Your task to perform on an android device: move a message to another label in the gmail app Image 0: 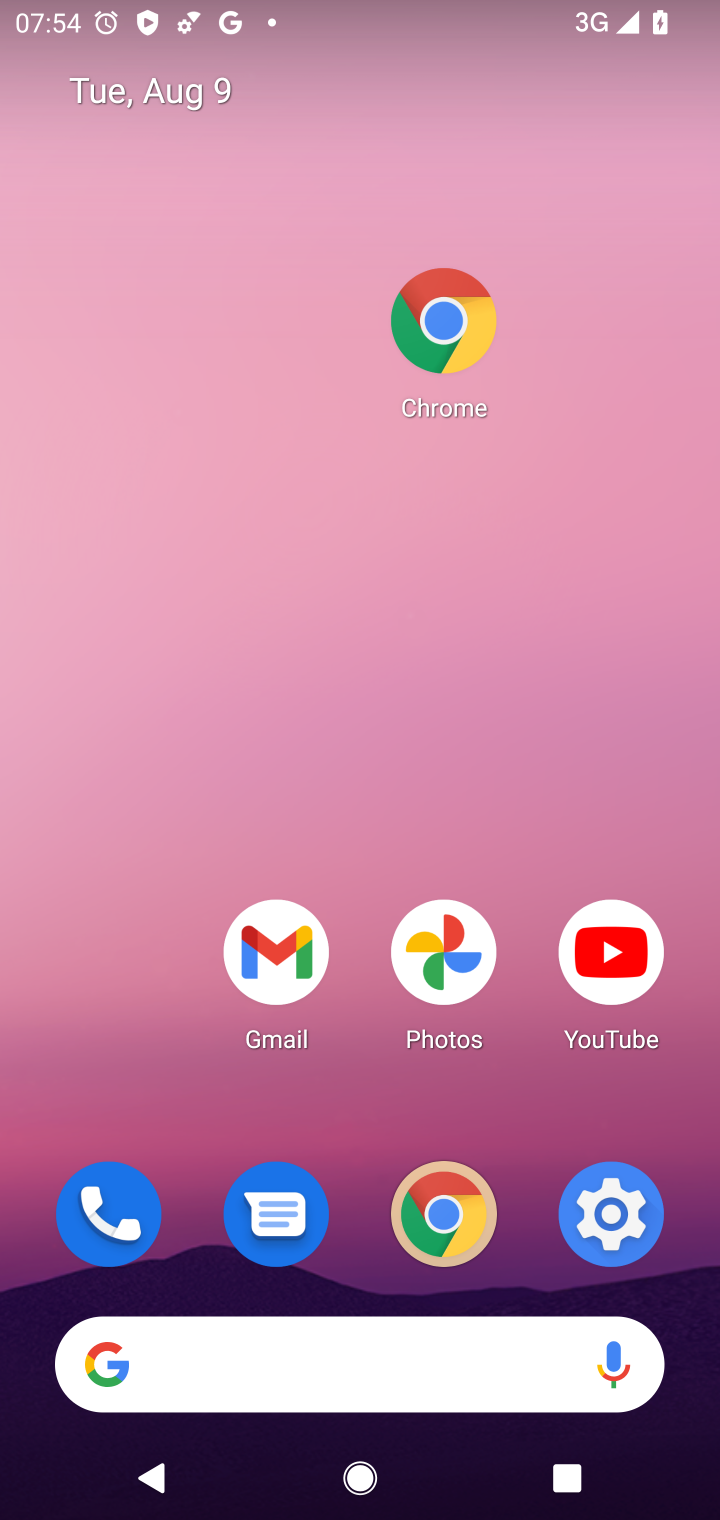
Step 0: press home button
Your task to perform on an android device: move a message to another label in the gmail app Image 1: 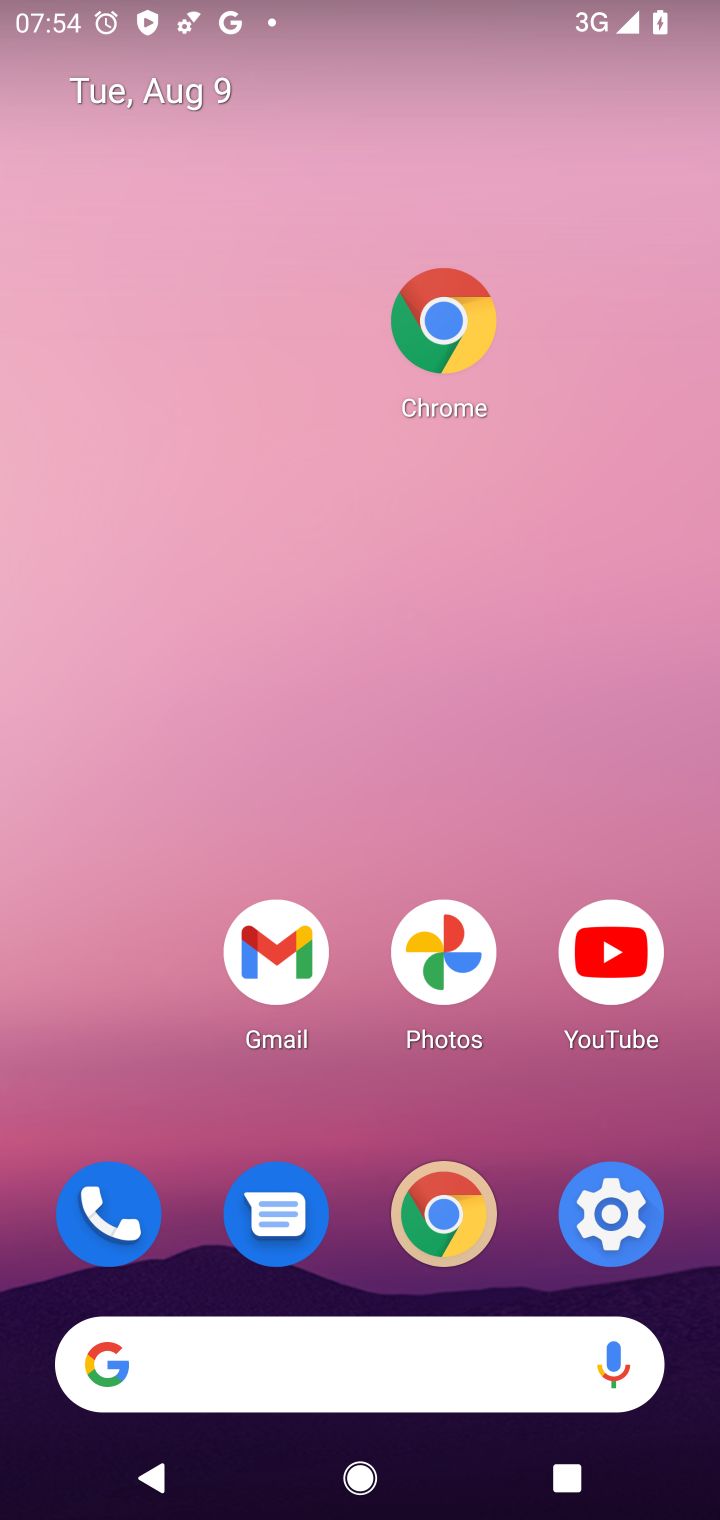
Step 1: click (275, 950)
Your task to perform on an android device: move a message to another label in the gmail app Image 2: 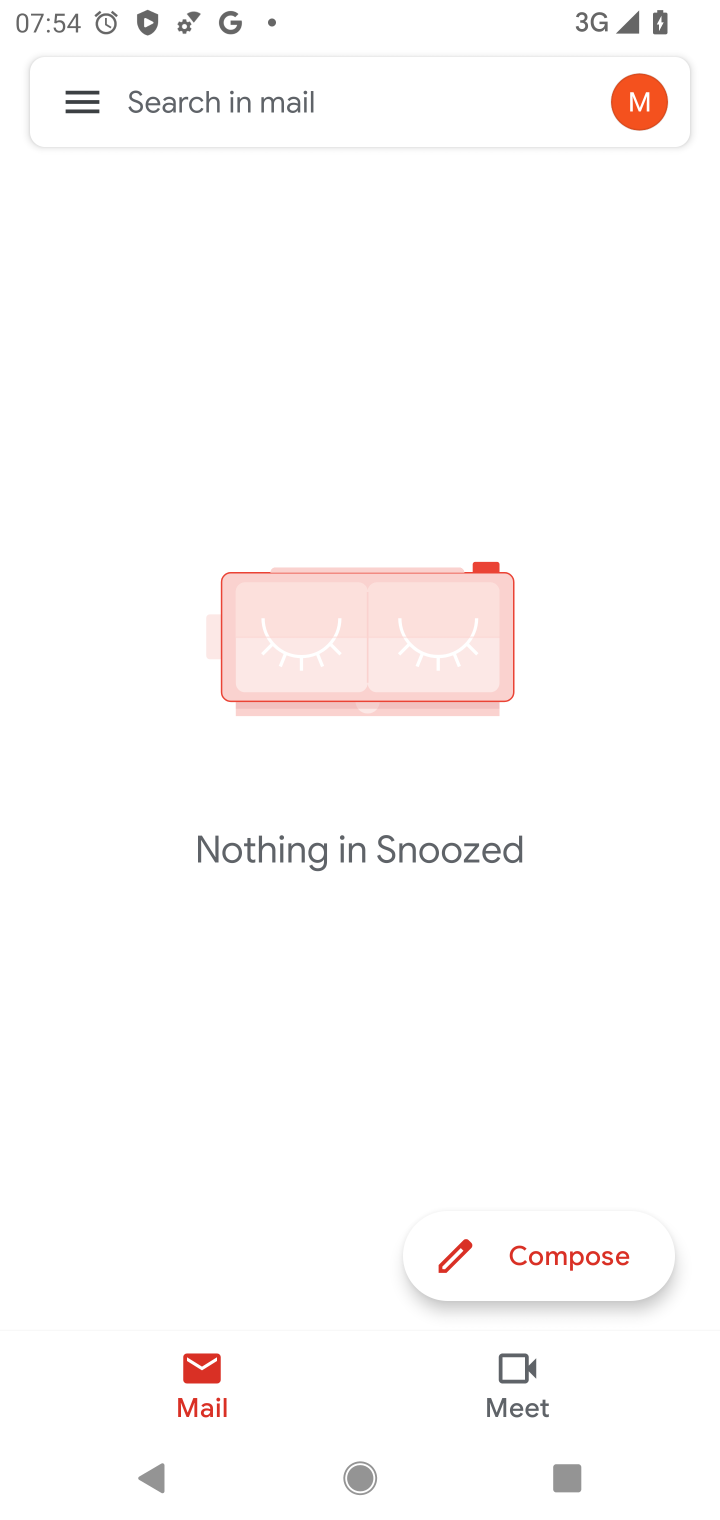
Step 2: click (82, 113)
Your task to perform on an android device: move a message to another label in the gmail app Image 3: 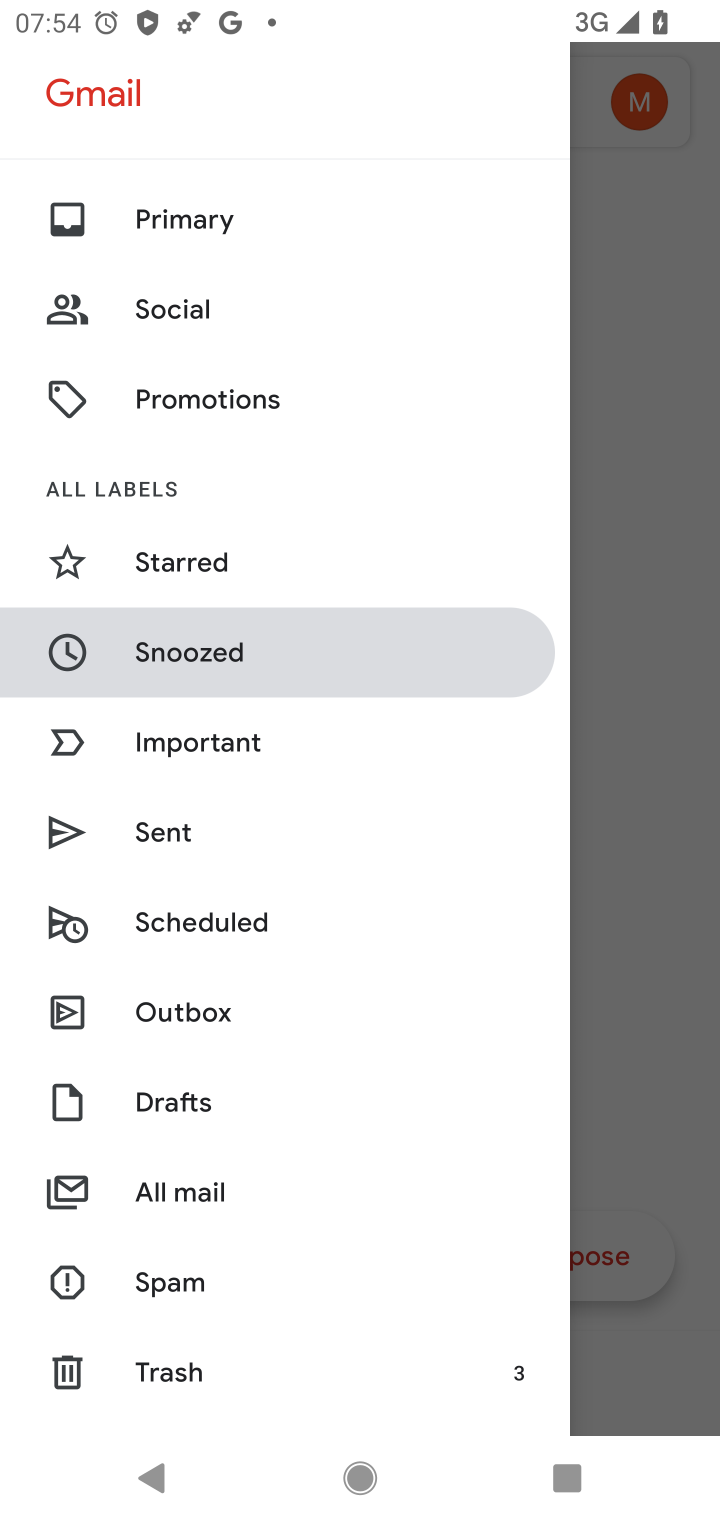
Step 3: drag from (227, 1321) to (238, 1194)
Your task to perform on an android device: move a message to another label in the gmail app Image 4: 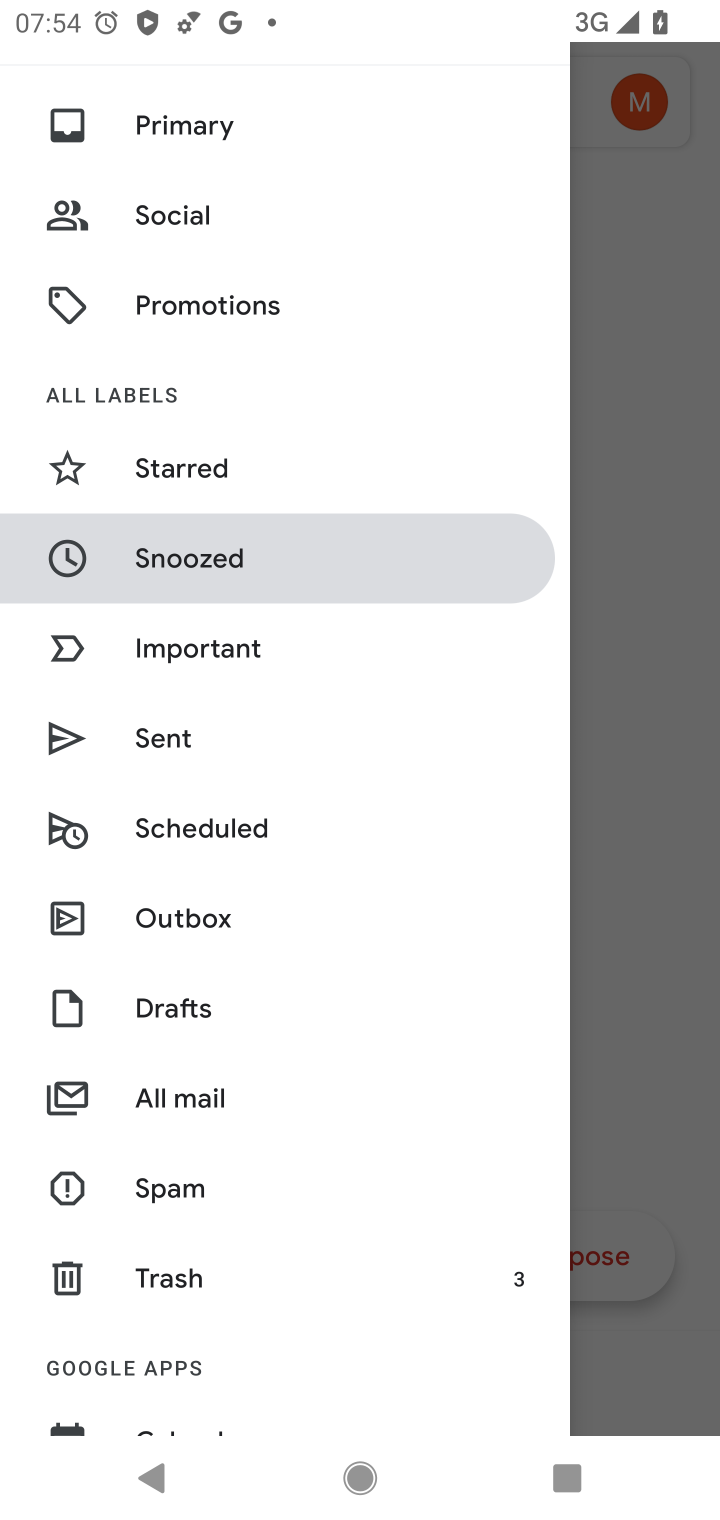
Step 4: drag from (200, 1273) to (233, 1133)
Your task to perform on an android device: move a message to another label in the gmail app Image 5: 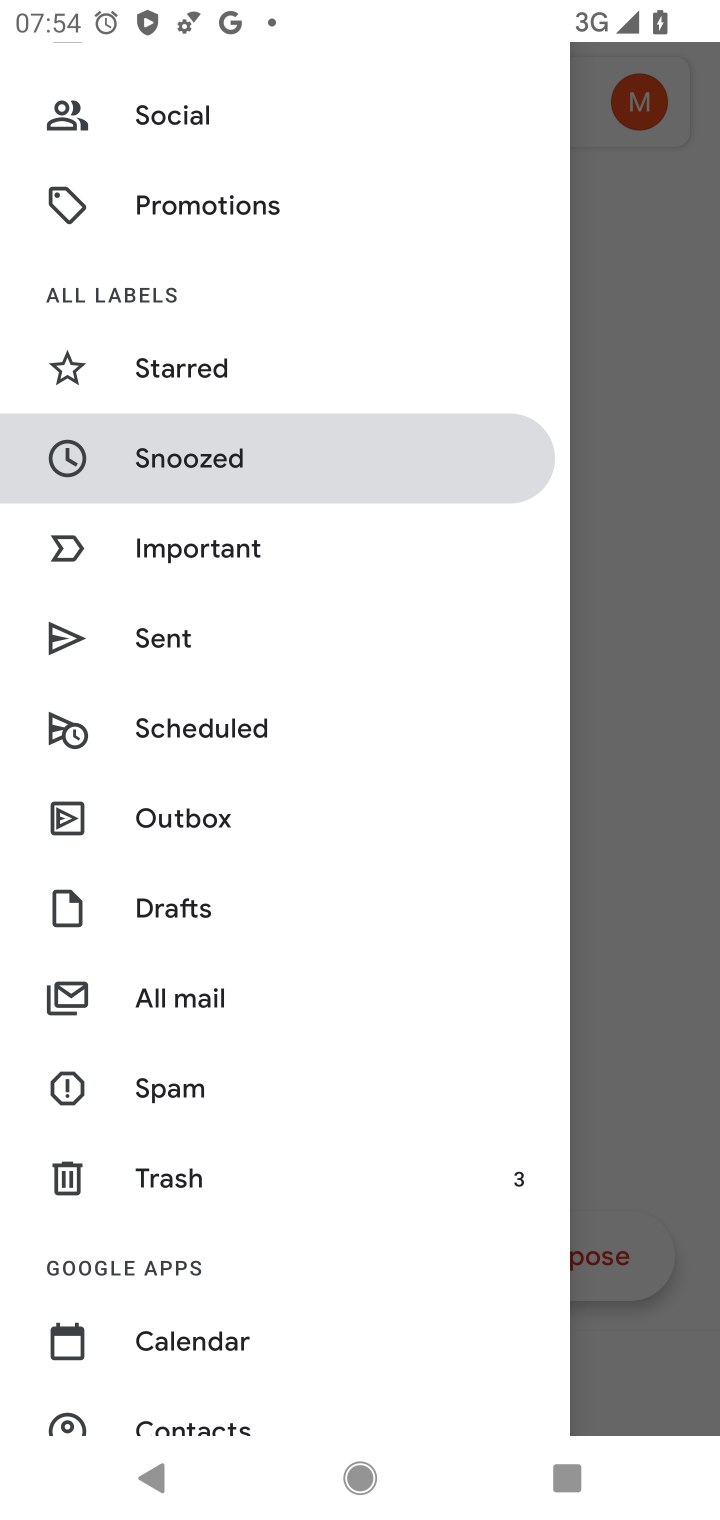
Step 5: drag from (180, 1280) to (226, 1102)
Your task to perform on an android device: move a message to another label in the gmail app Image 6: 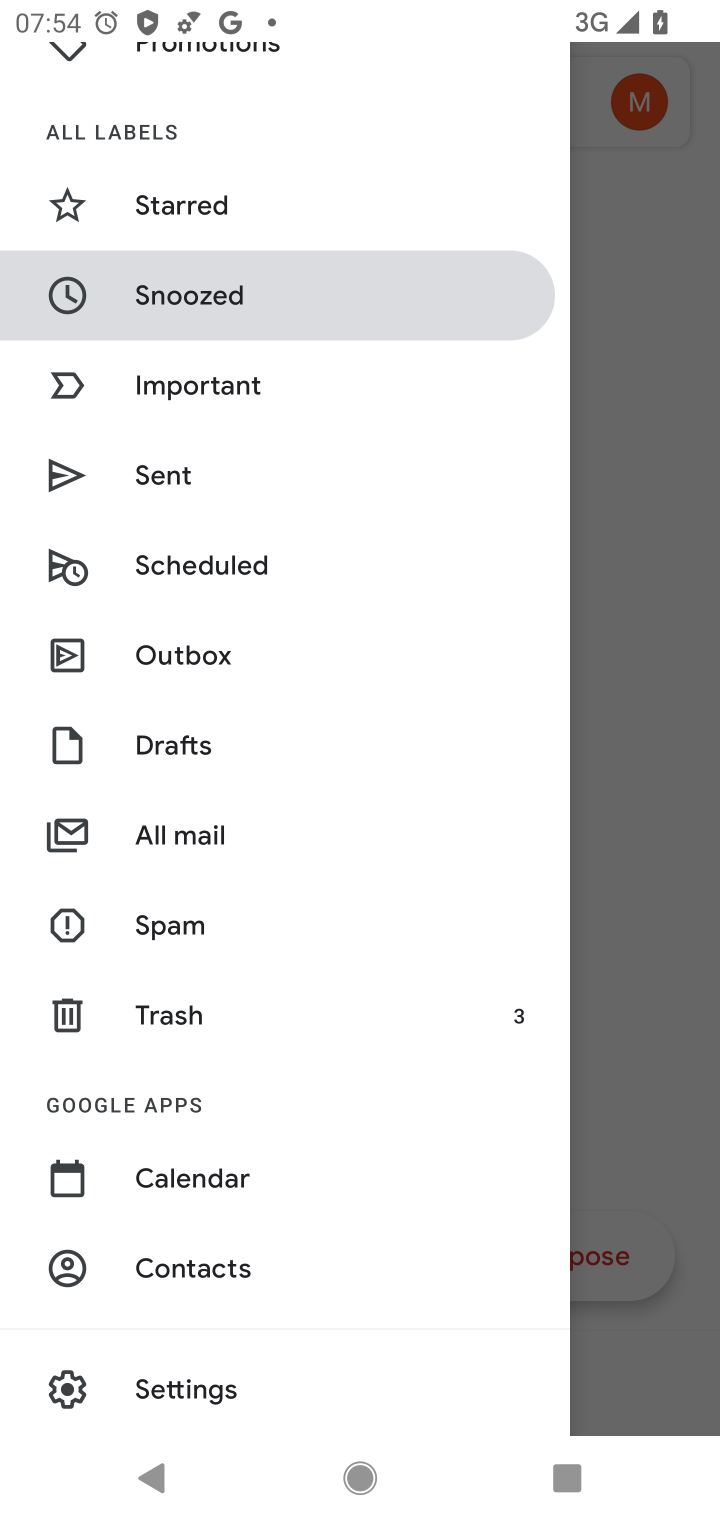
Step 6: click (205, 1377)
Your task to perform on an android device: move a message to another label in the gmail app Image 7: 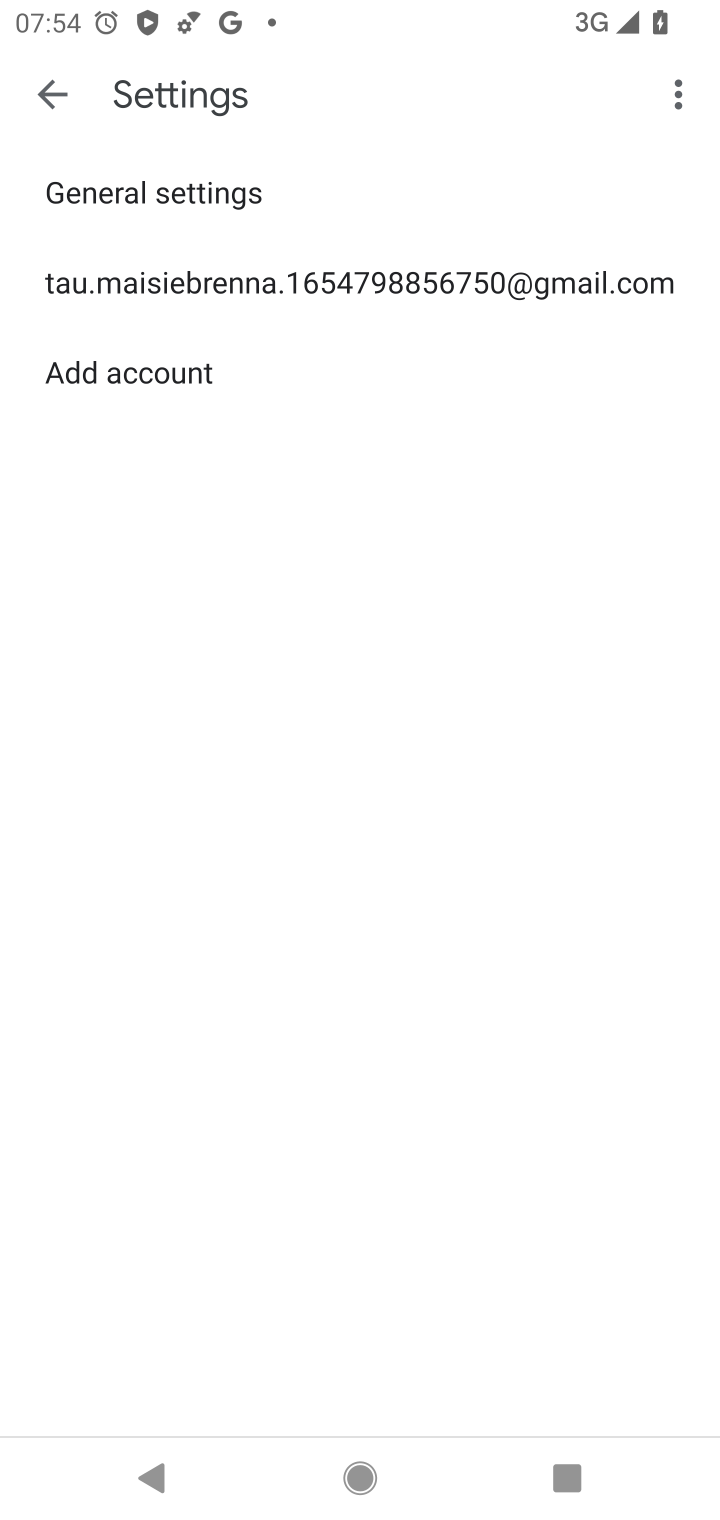
Step 7: click (226, 276)
Your task to perform on an android device: move a message to another label in the gmail app Image 8: 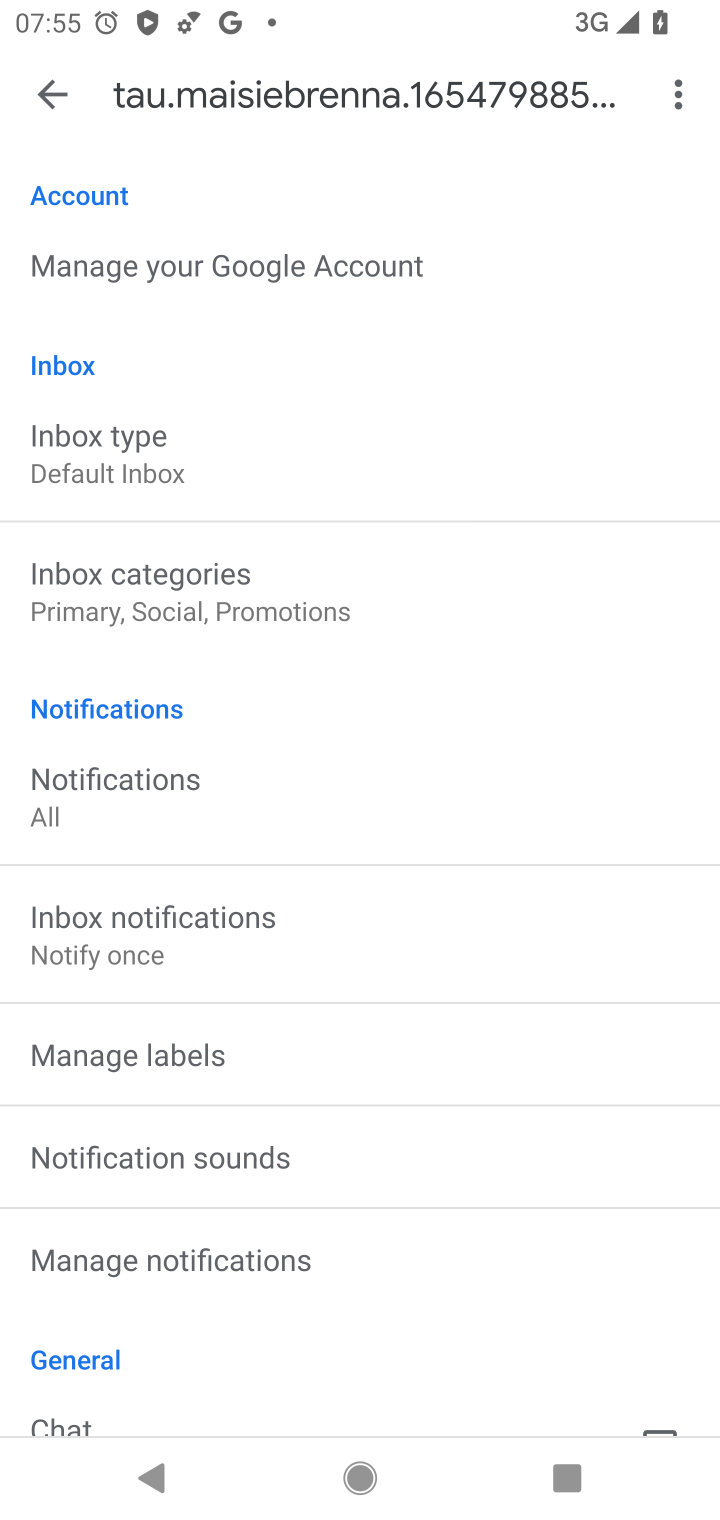
Step 8: click (213, 1048)
Your task to perform on an android device: move a message to another label in the gmail app Image 9: 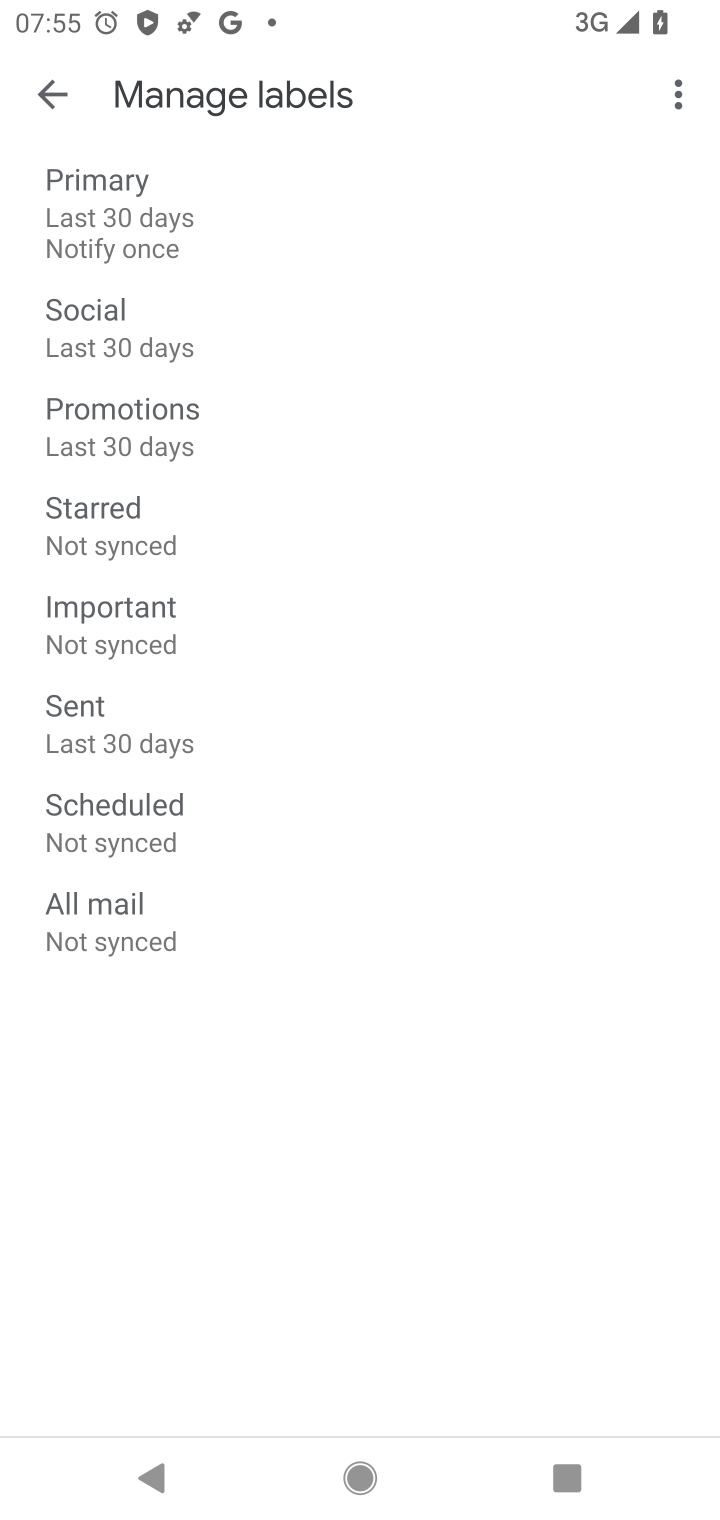
Step 9: click (139, 445)
Your task to perform on an android device: move a message to another label in the gmail app Image 10: 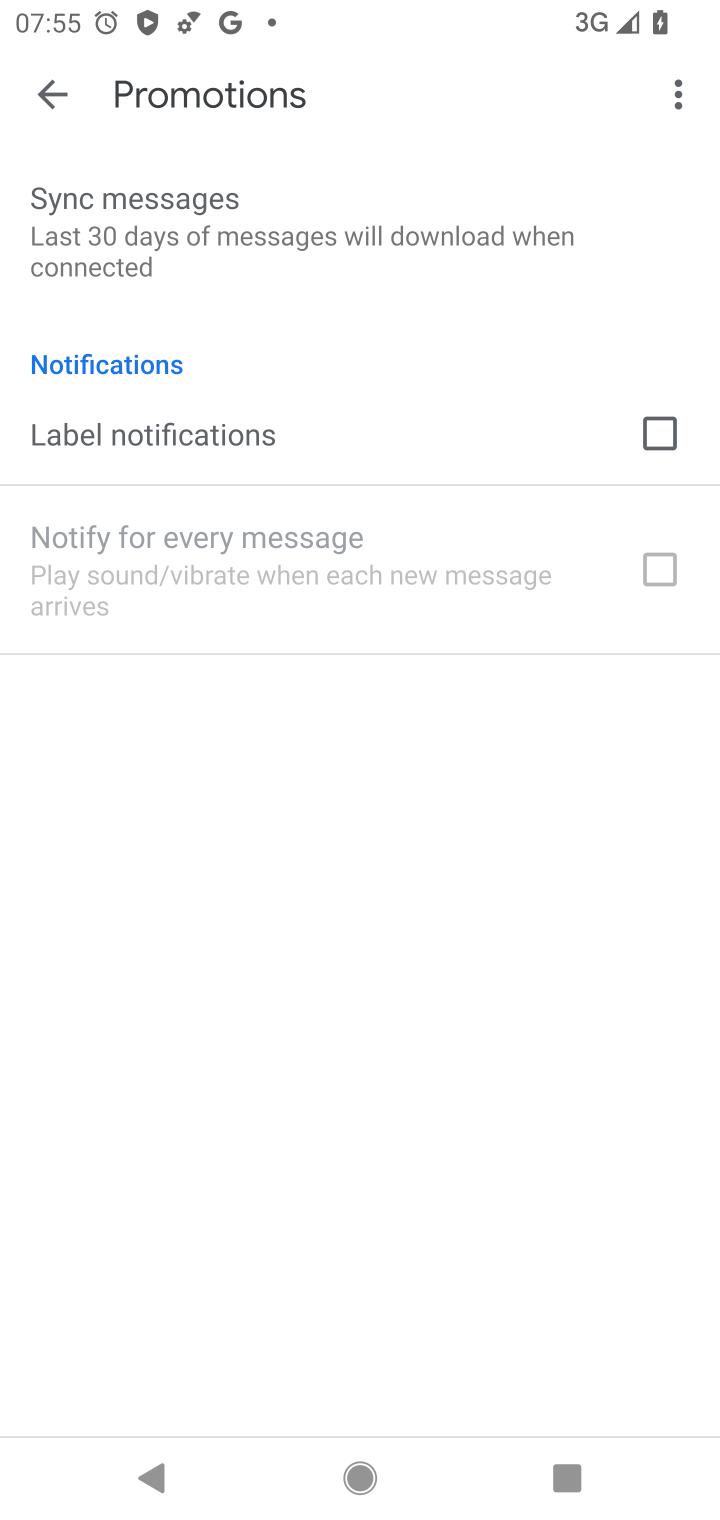
Step 10: task complete